Your task to perform on an android device: turn on wifi Image 0: 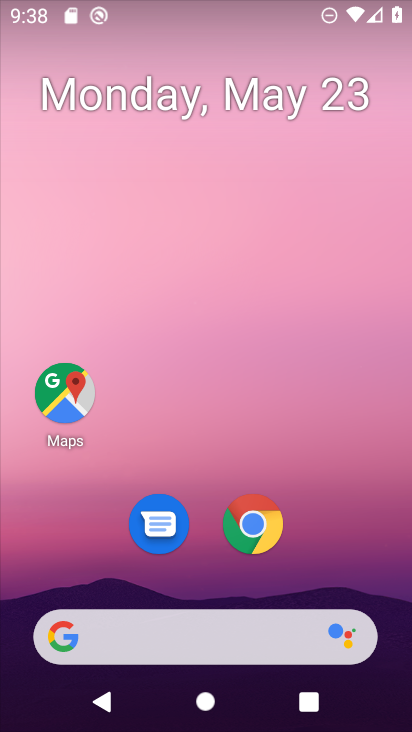
Step 0: drag from (246, 484) to (291, 28)
Your task to perform on an android device: turn on wifi Image 1: 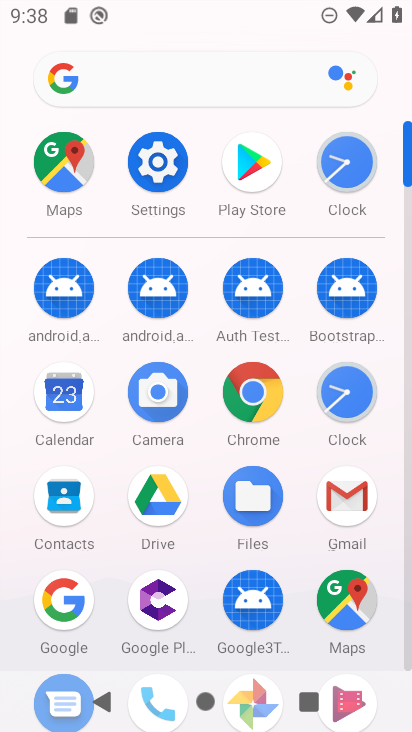
Step 1: click (166, 179)
Your task to perform on an android device: turn on wifi Image 2: 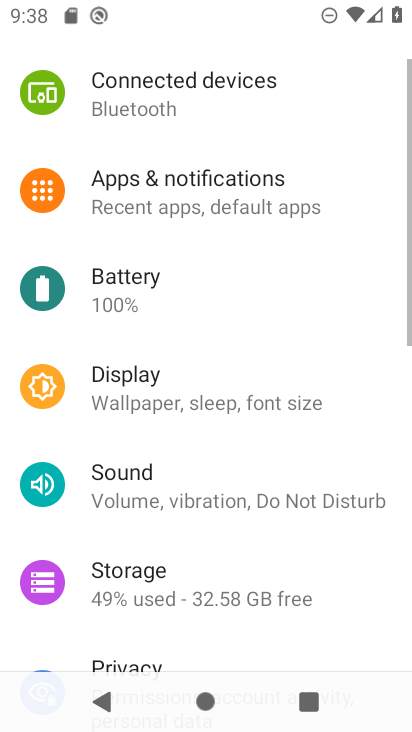
Step 2: drag from (166, 177) to (195, 536)
Your task to perform on an android device: turn on wifi Image 3: 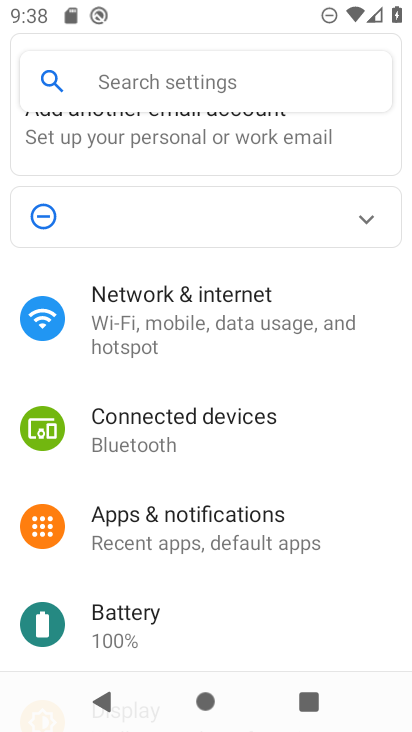
Step 3: click (242, 316)
Your task to perform on an android device: turn on wifi Image 4: 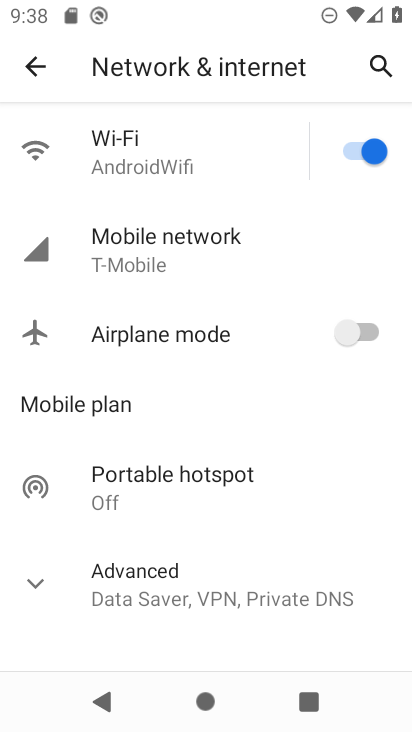
Step 4: task complete